Your task to perform on an android device: What is the recent news? Image 0: 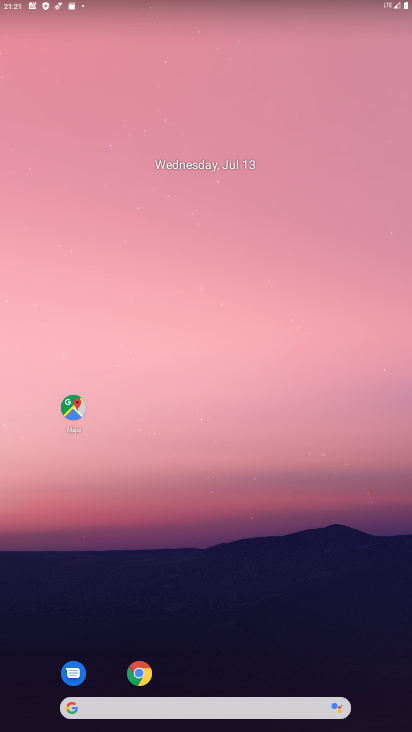
Step 0: drag from (215, 571) to (232, 284)
Your task to perform on an android device: What is the recent news? Image 1: 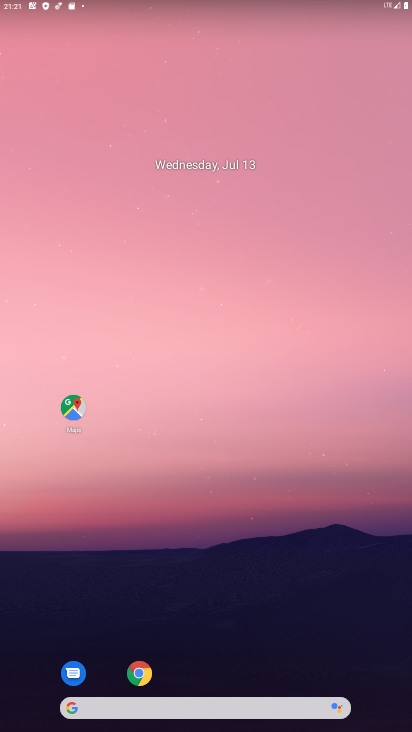
Step 1: drag from (208, 670) to (271, 249)
Your task to perform on an android device: What is the recent news? Image 2: 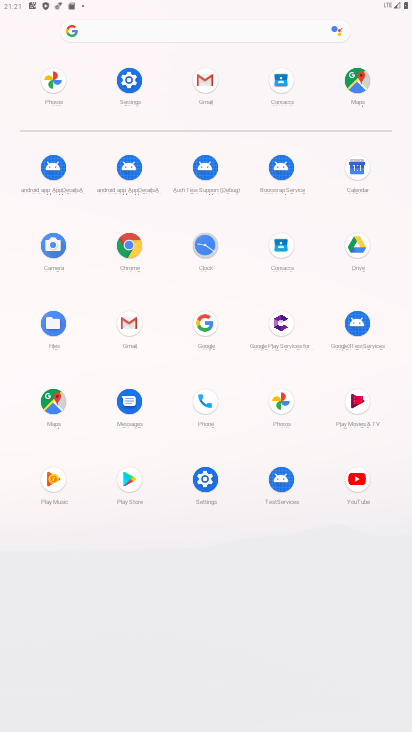
Step 2: click (245, 31)
Your task to perform on an android device: What is the recent news? Image 3: 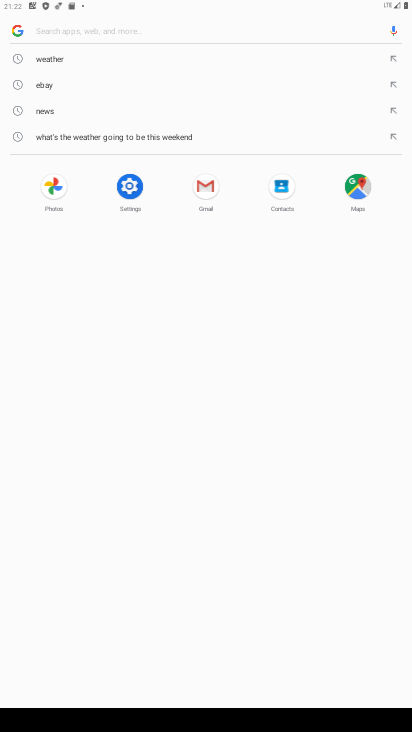
Step 3: type "recent news?"
Your task to perform on an android device: What is the recent news? Image 4: 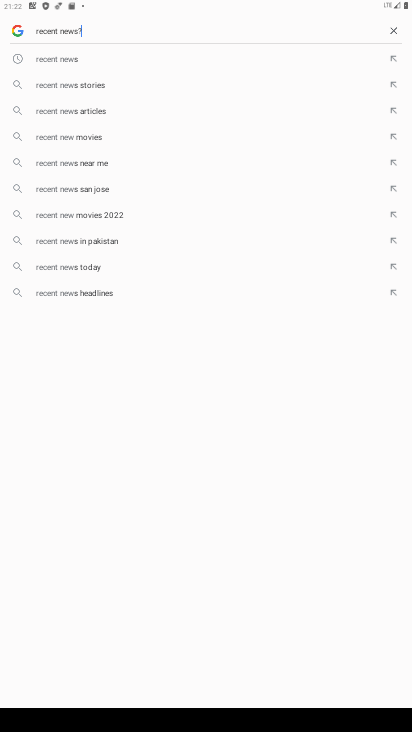
Step 4: type ""
Your task to perform on an android device: What is the recent news? Image 5: 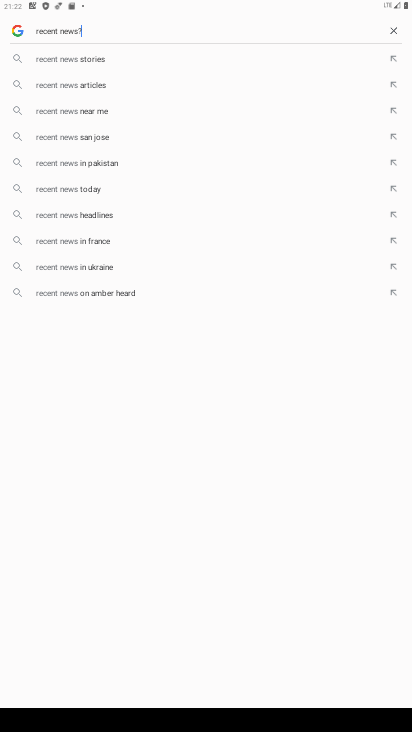
Step 5: type ""
Your task to perform on an android device: What is the recent news? Image 6: 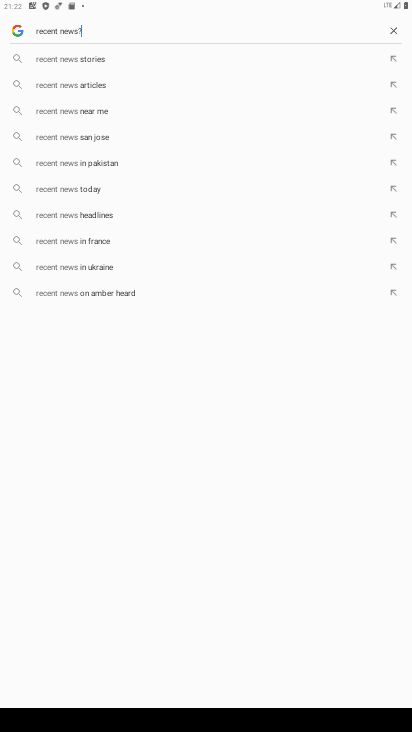
Step 6: click (56, 141)
Your task to perform on an android device: What is the recent news? Image 7: 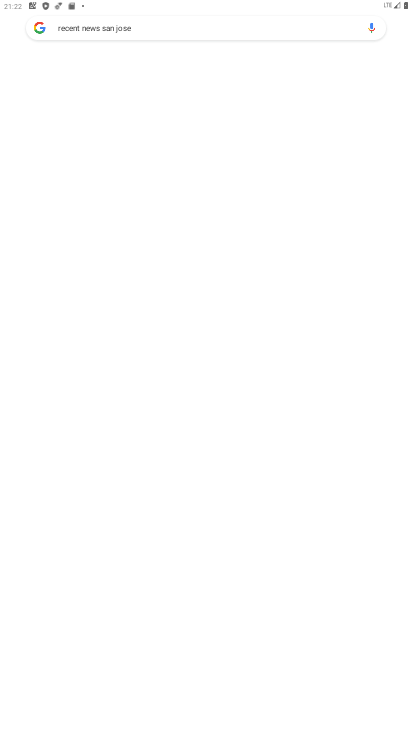
Step 7: task complete